Your task to perform on an android device: change text size in settings app Image 0: 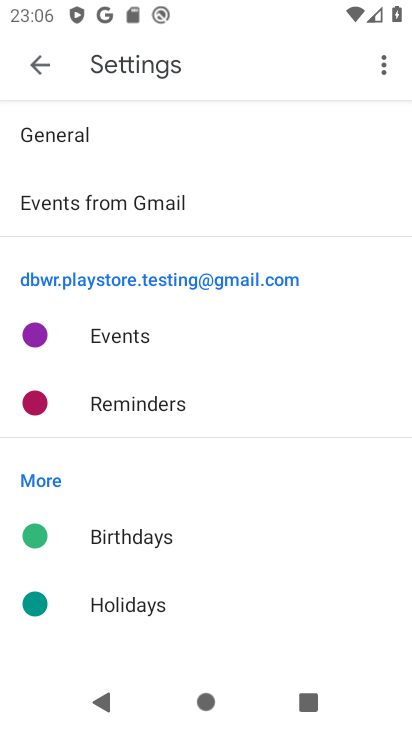
Step 0: press home button
Your task to perform on an android device: change text size in settings app Image 1: 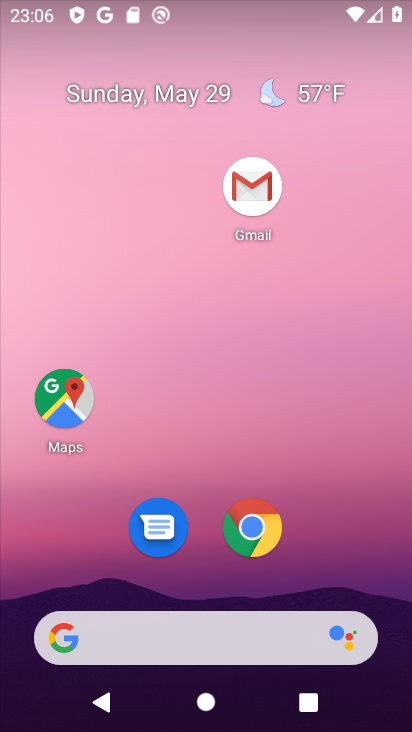
Step 1: drag from (338, 570) to (333, 32)
Your task to perform on an android device: change text size in settings app Image 2: 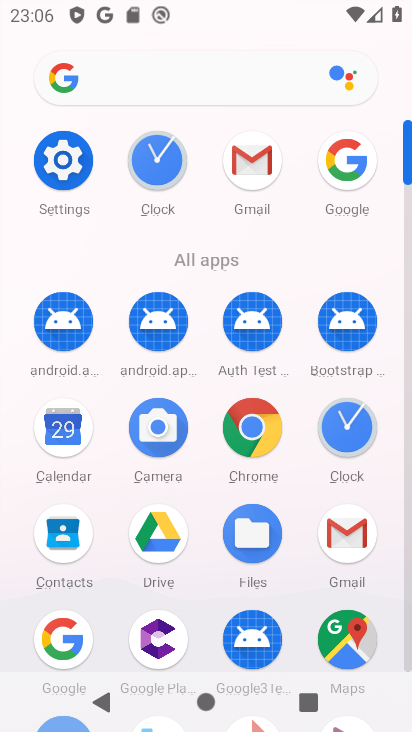
Step 2: click (64, 160)
Your task to perform on an android device: change text size in settings app Image 3: 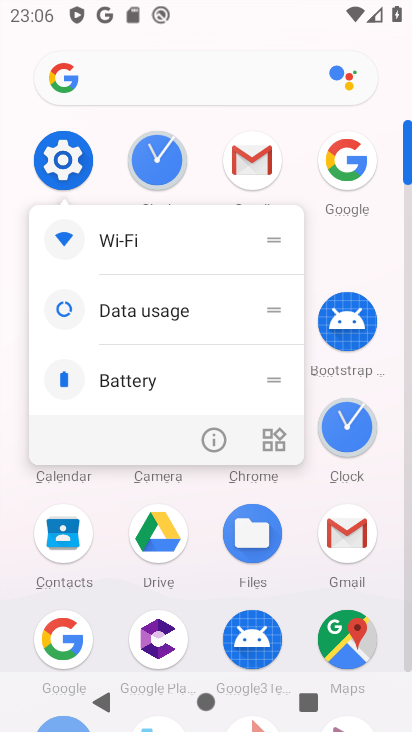
Step 3: click (64, 160)
Your task to perform on an android device: change text size in settings app Image 4: 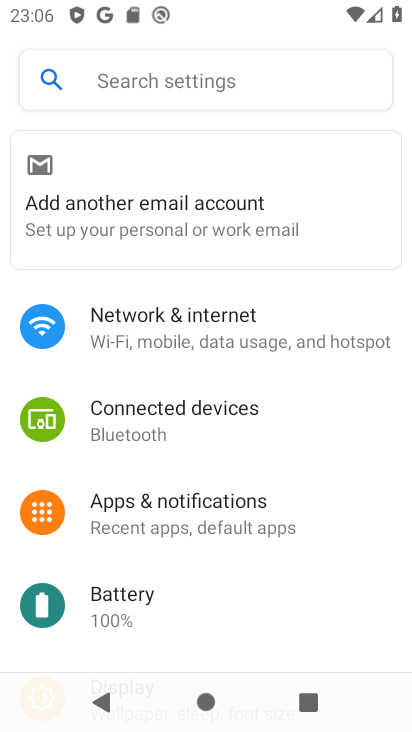
Step 4: drag from (145, 375) to (168, 272)
Your task to perform on an android device: change text size in settings app Image 5: 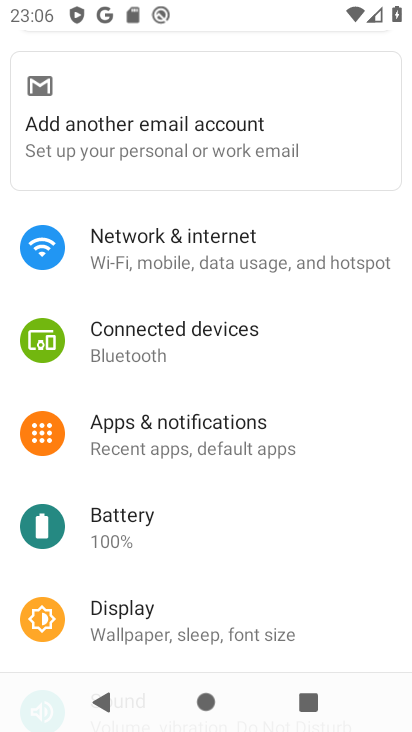
Step 5: drag from (153, 474) to (217, 379)
Your task to perform on an android device: change text size in settings app Image 6: 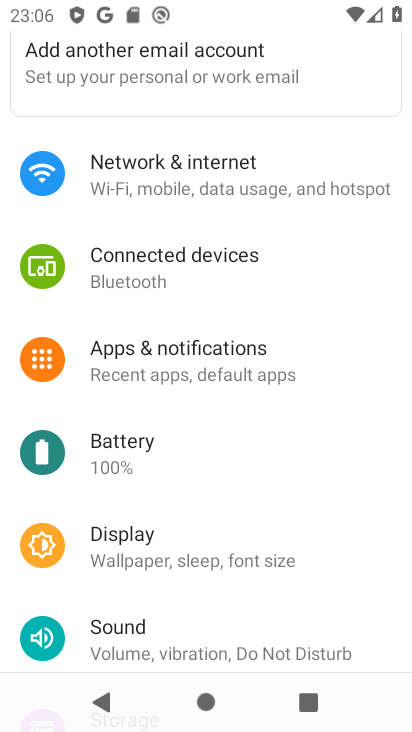
Step 6: drag from (169, 459) to (199, 360)
Your task to perform on an android device: change text size in settings app Image 7: 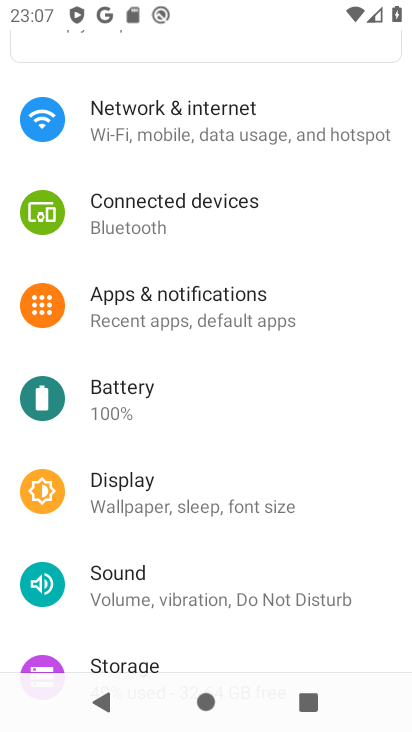
Step 7: drag from (142, 546) to (245, 264)
Your task to perform on an android device: change text size in settings app Image 8: 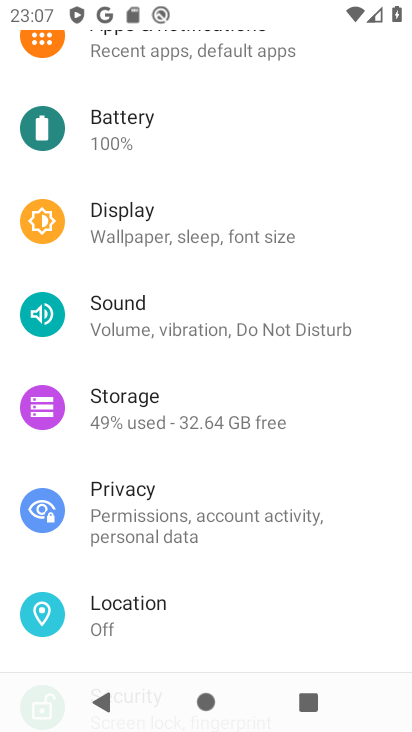
Step 8: drag from (110, 576) to (283, 291)
Your task to perform on an android device: change text size in settings app Image 9: 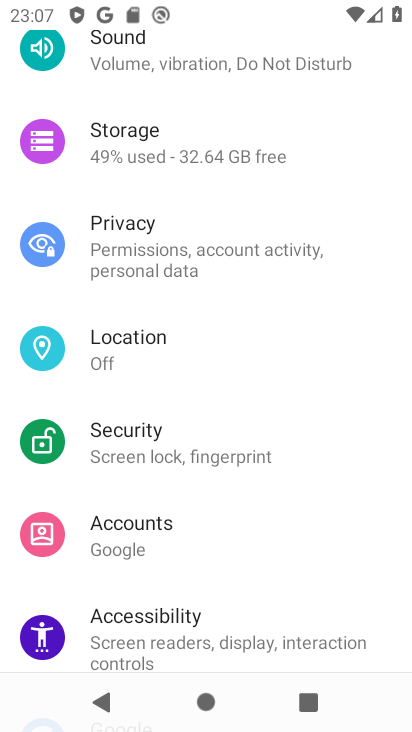
Step 9: click (146, 613)
Your task to perform on an android device: change text size in settings app Image 10: 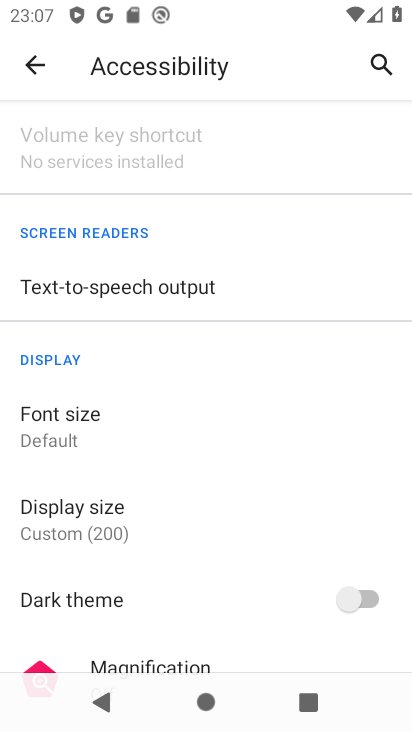
Step 10: click (90, 440)
Your task to perform on an android device: change text size in settings app Image 11: 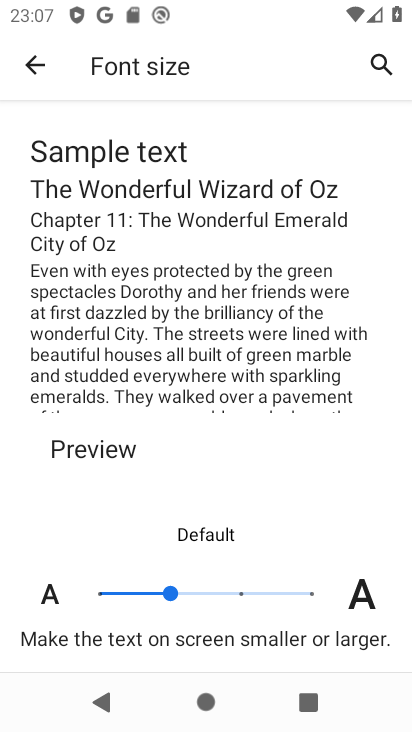
Step 11: click (97, 595)
Your task to perform on an android device: change text size in settings app Image 12: 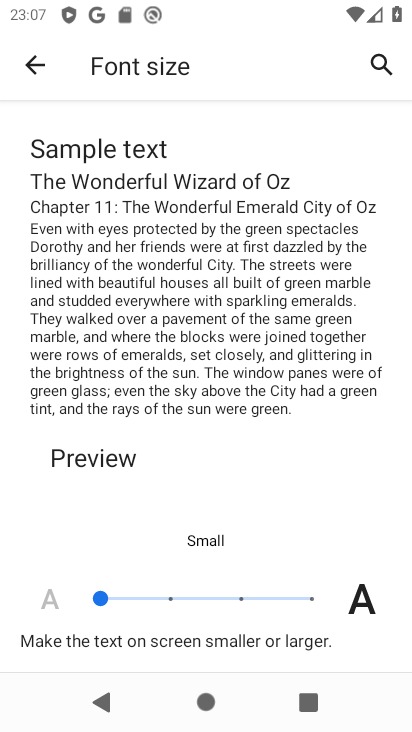
Step 12: task complete